Your task to perform on an android device: turn on javascript in the chrome app Image 0: 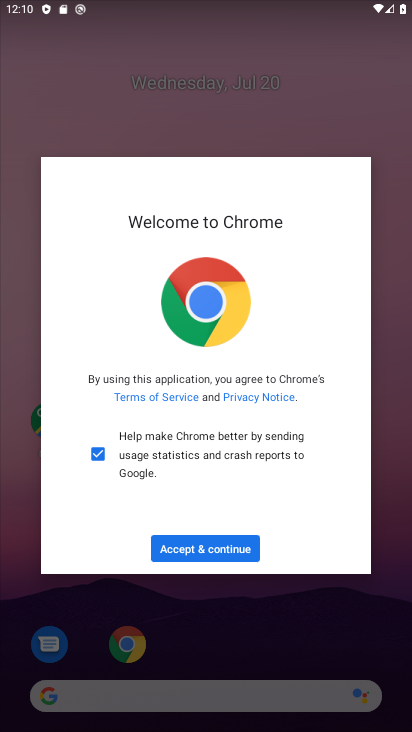
Step 0: press home button
Your task to perform on an android device: turn on javascript in the chrome app Image 1: 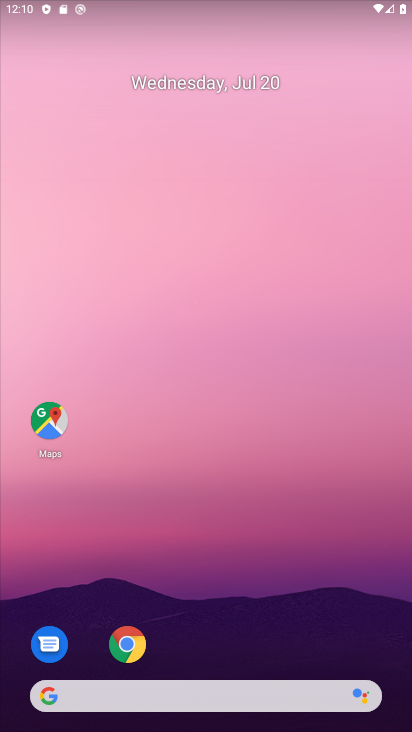
Step 1: click (129, 639)
Your task to perform on an android device: turn on javascript in the chrome app Image 2: 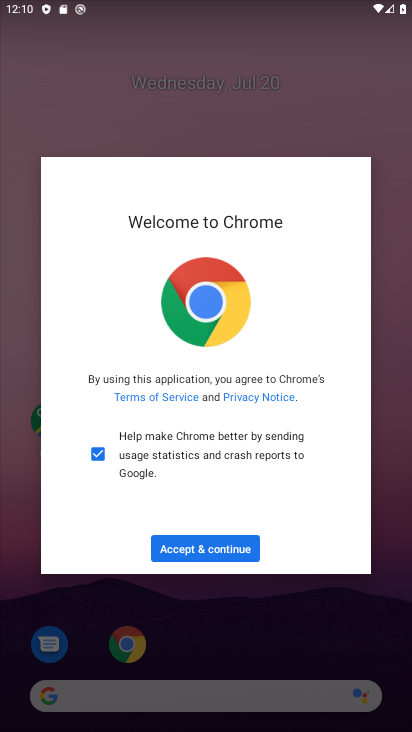
Step 2: click (191, 553)
Your task to perform on an android device: turn on javascript in the chrome app Image 3: 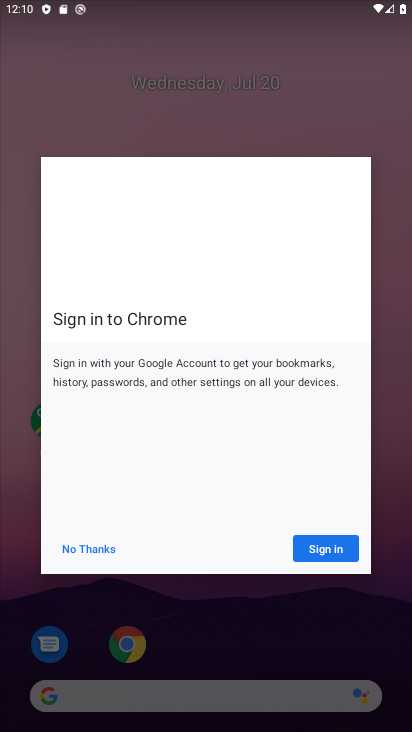
Step 3: click (304, 550)
Your task to perform on an android device: turn on javascript in the chrome app Image 4: 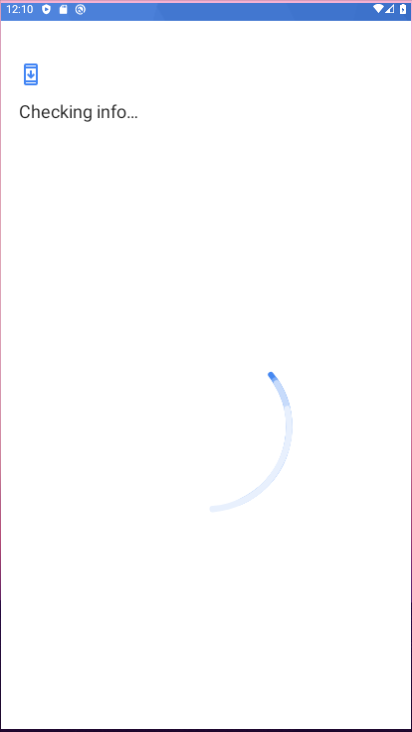
Step 4: click (315, 550)
Your task to perform on an android device: turn on javascript in the chrome app Image 5: 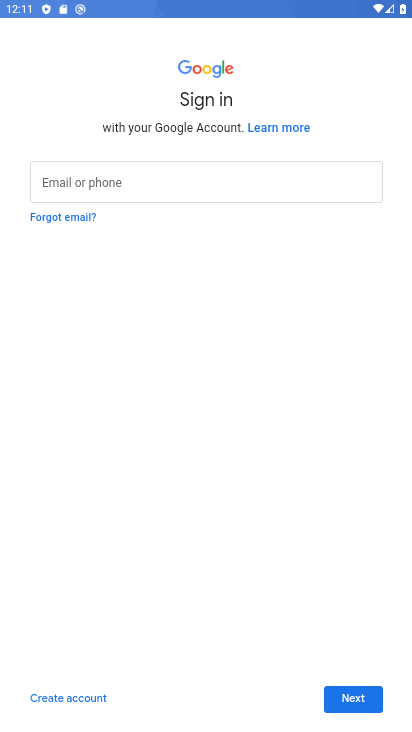
Step 5: press back button
Your task to perform on an android device: turn on javascript in the chrome app Image 6: 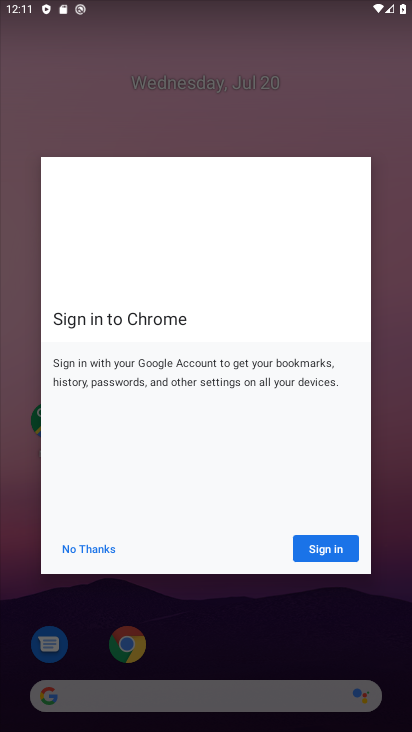
Step 6: click (82, 558)
Your task to perform on an android device: turn on javascript in the chrome app Image 7: 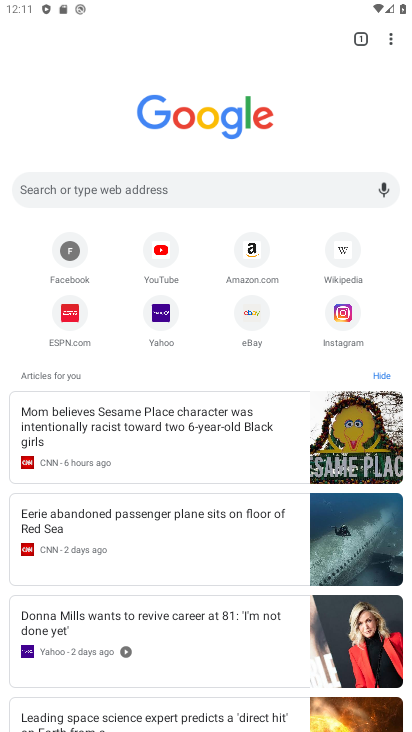
Step 7: click (398, 40)
Your task to perform on an android device: turn on javascript in the chrome app Image 8: 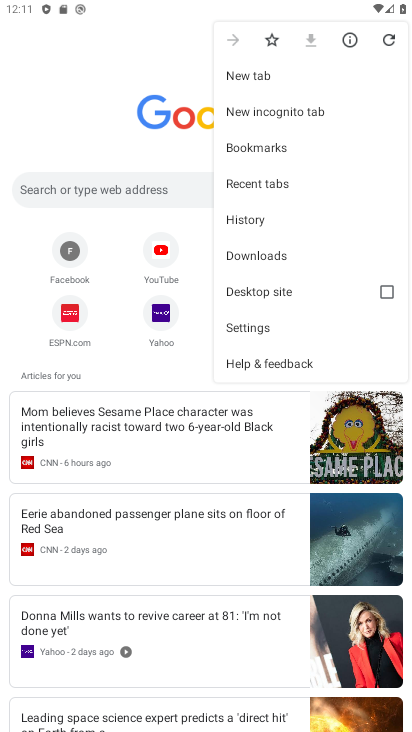
Step 8: click (265, 326)
Your task to perform on an android device: turn on javascript in the chrome app Image 9: 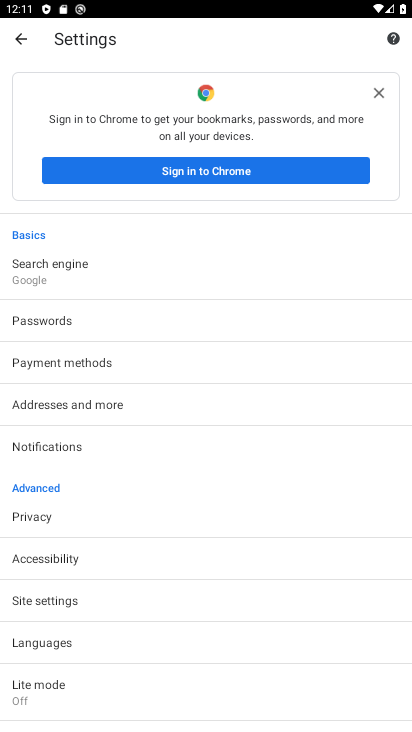
Step 9: click (82, 595)
Your task to perform on an android device: turn on javascript in the chrome app Image 10: 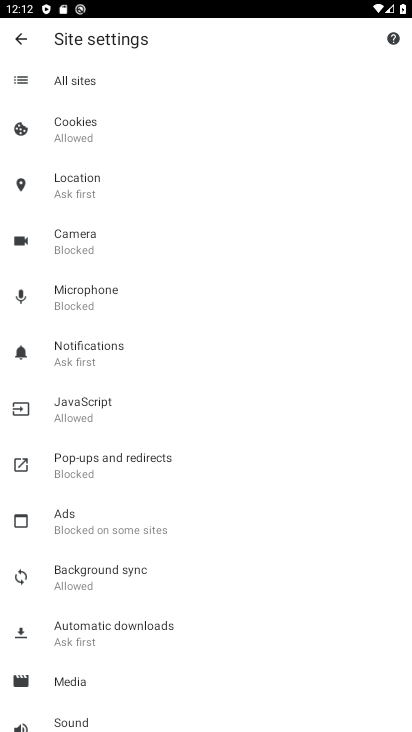
Step 10: click (72, 421)
Your task to perform on an android device: turn on javascript in the chrome app Image 11: 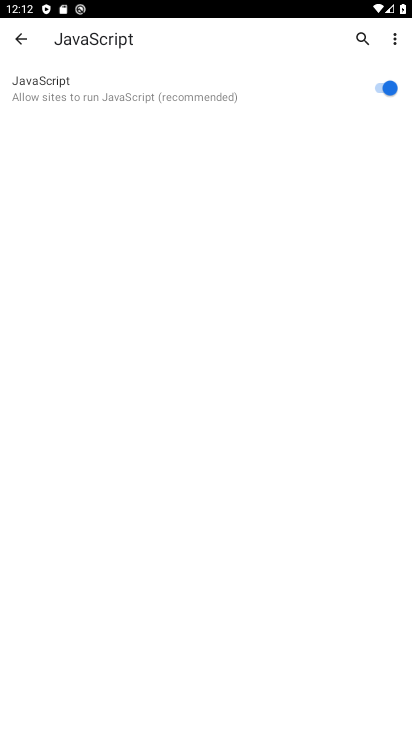
Step 11: task complete